Your task to perform on an android device: Go to Reddit Image 0: 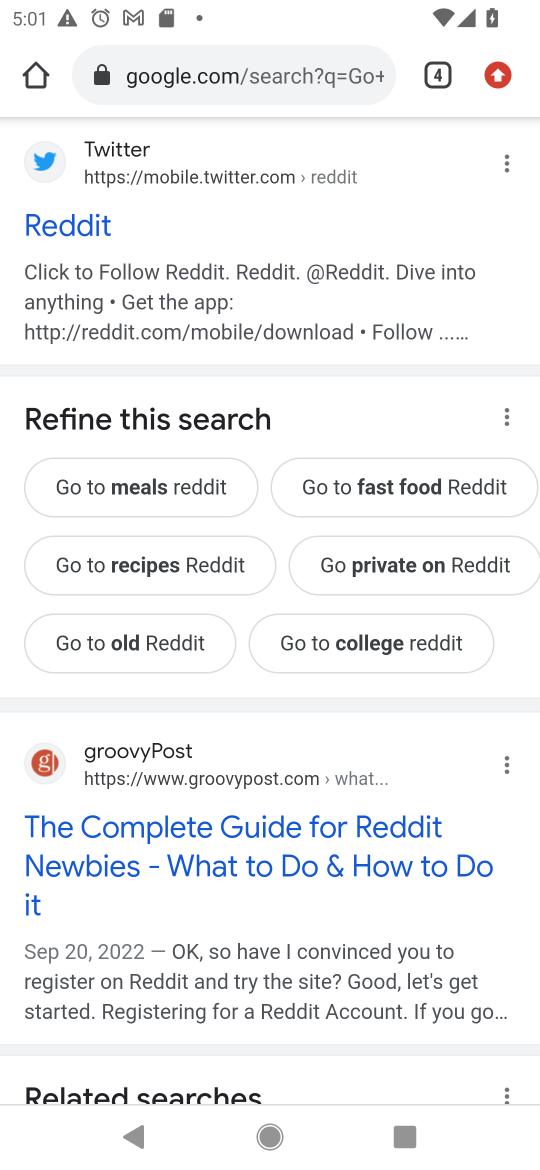
Step 0: press home button
Your task to perform on an android device: Go to Reddit Image 1: 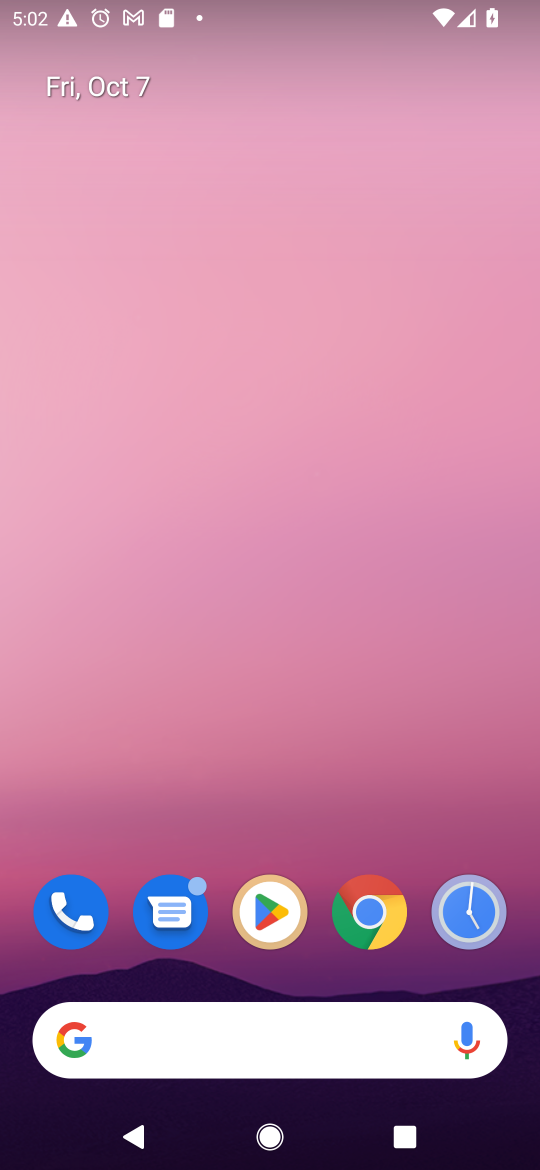
Step 1: drag from (166, 923) to (197, 4)
Your task to perform on an android device: Go to Reddit Image 2: 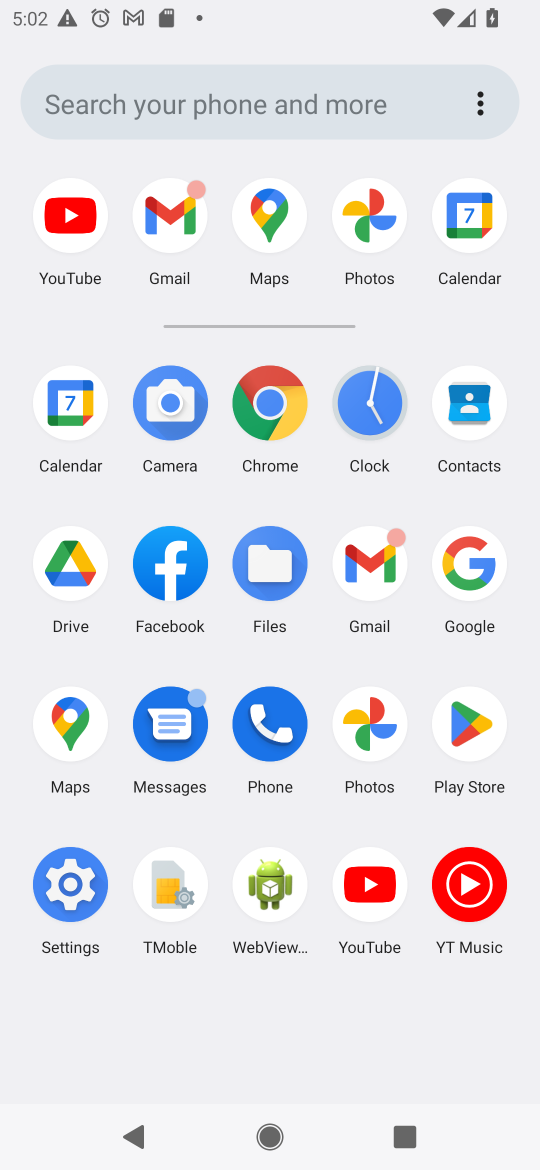
Step 2: click (467, 547)
Your task to perform on an android device: Go to Reddit Image 3: 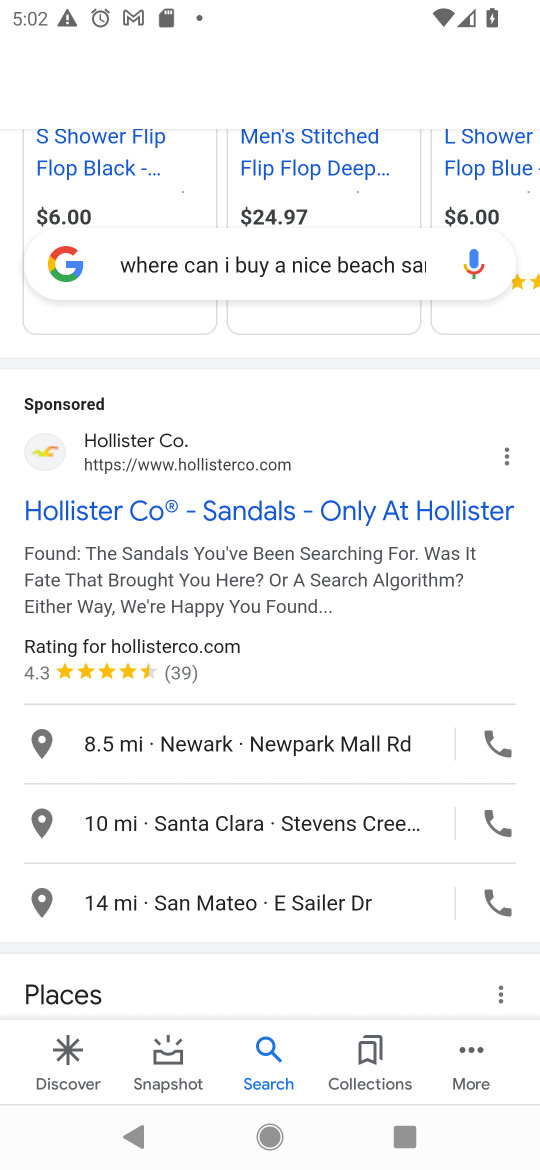
Step 3: click (269, 267)
Your task to perform on an android device: Go to Reddit Image 4: 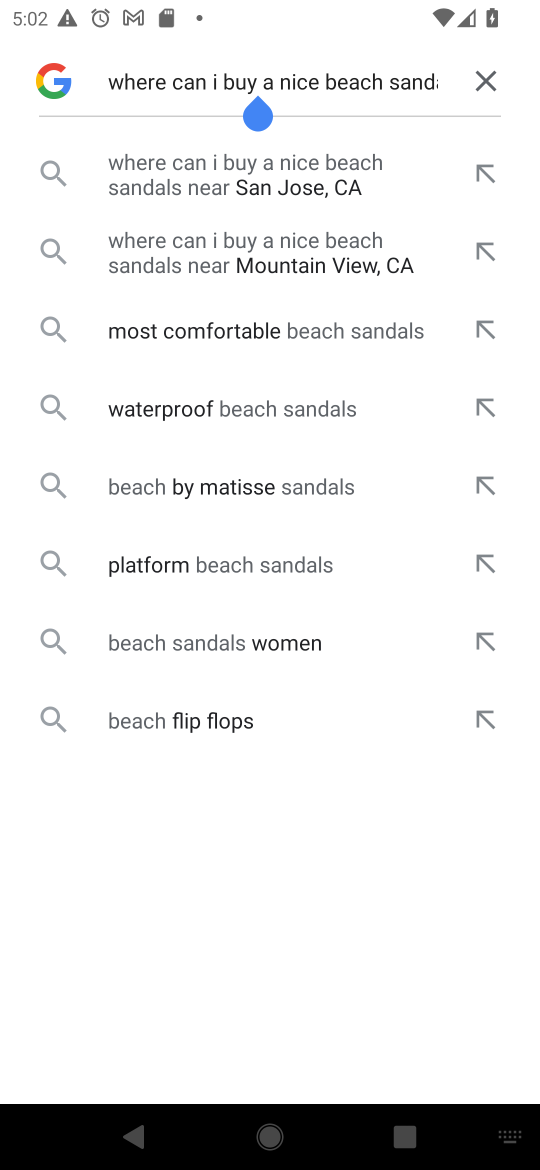
Step 4: click (493, 103)
Your task to perform on an android device: Go to Reddit Image 5: 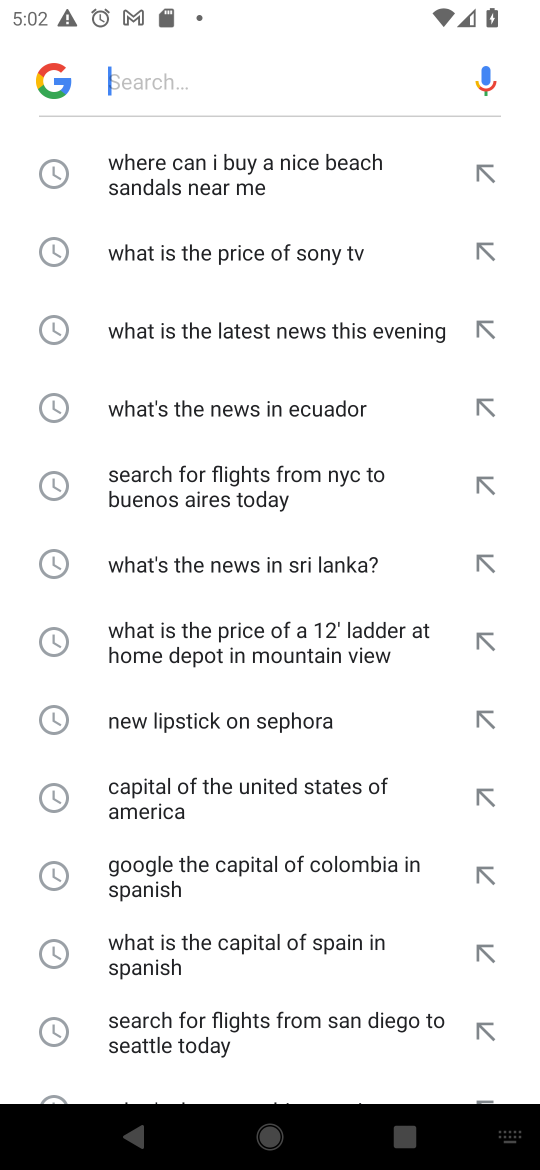
Step 5: click (218, 67)
Your task to perform on an android device: Go to Reddit Image 6: 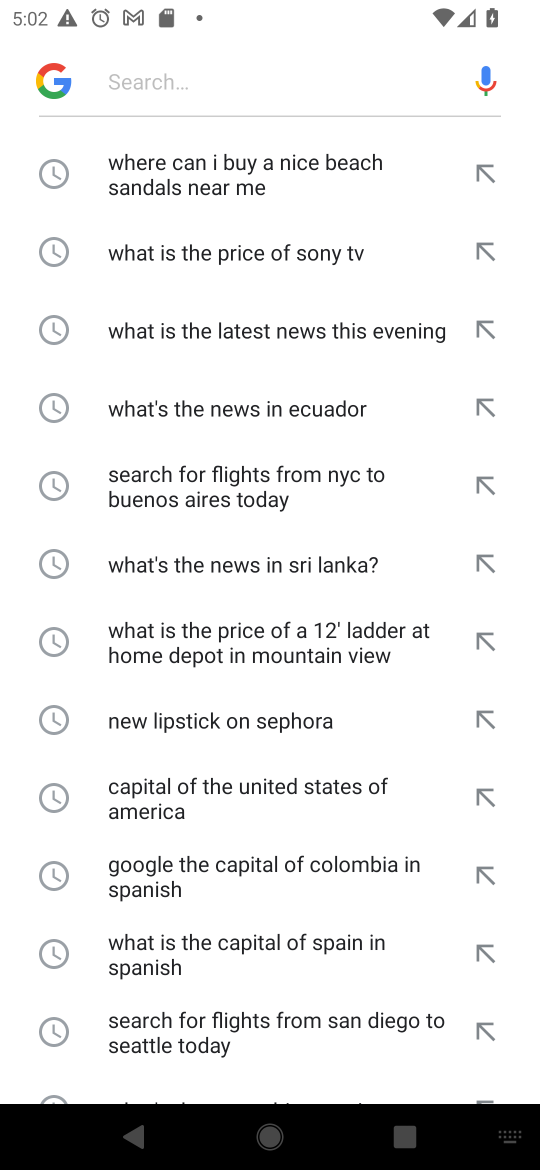
Step 6: type "Go to Reddit "
Your task to perform on an android device: Go to Reddit Image 7: 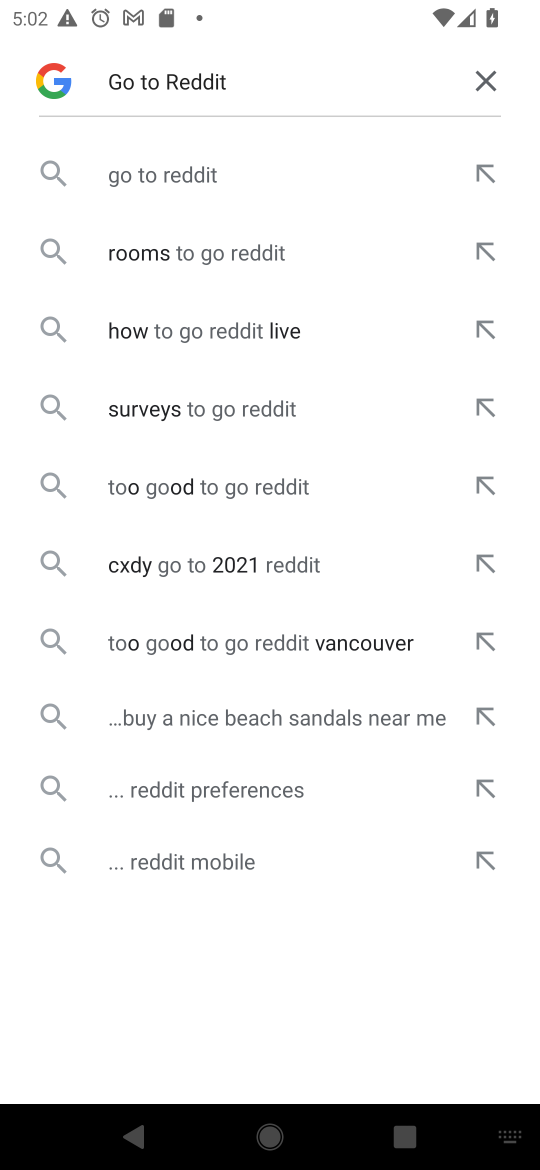
Step 7: click (165, 173)
Your task to perform on an android device: Go to Reddit Image 8: 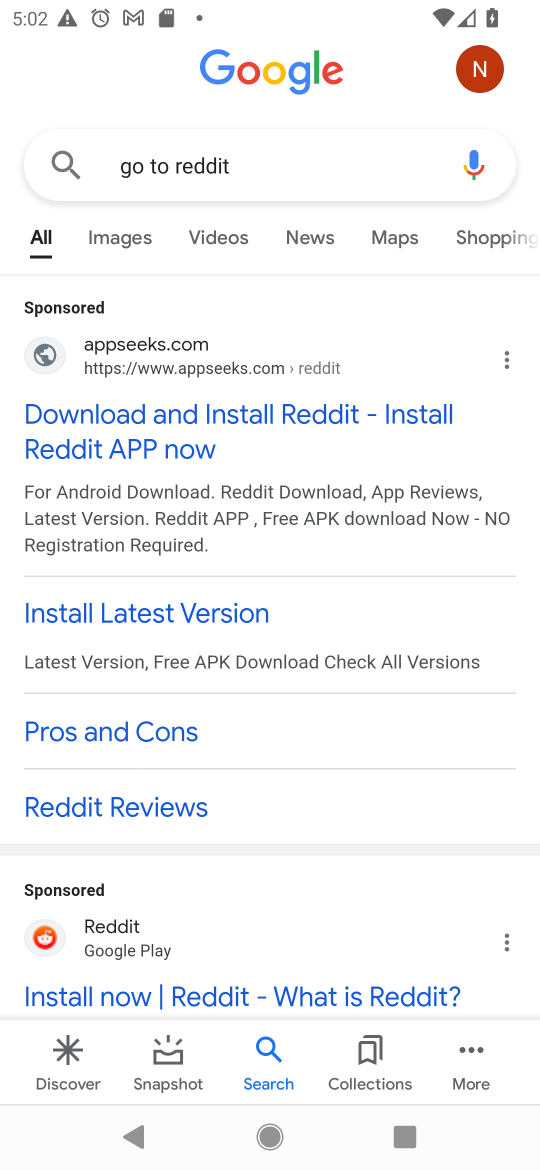
Step 8: task complete